Your task to perform on an android device: add a contact in the contacts app Image 0: 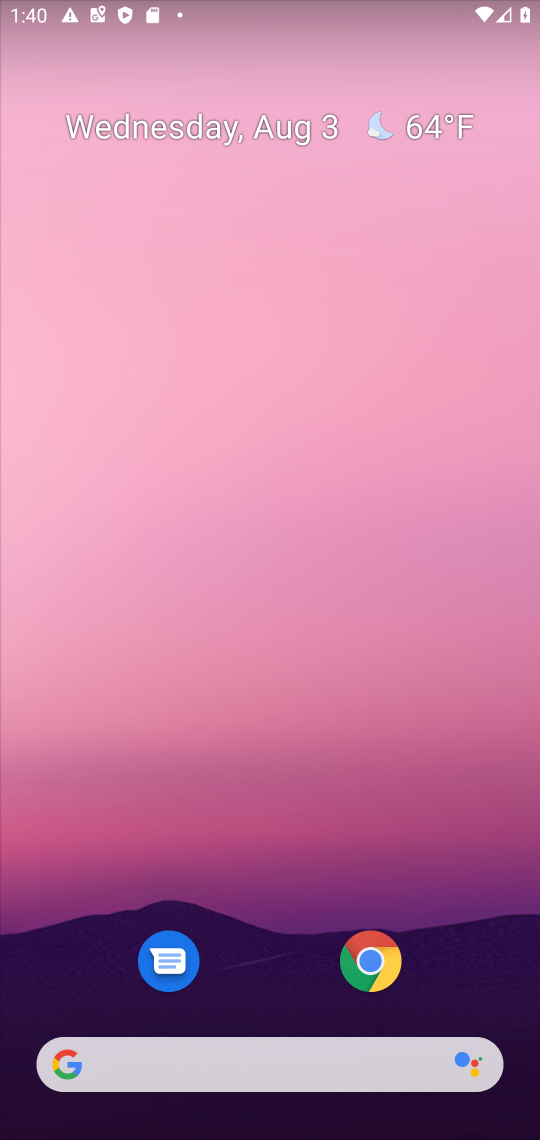
Step 0: drag from (280, 952) to (297, 101)
Your task to perform on an android device: add a contact in the contacts app Image 1: 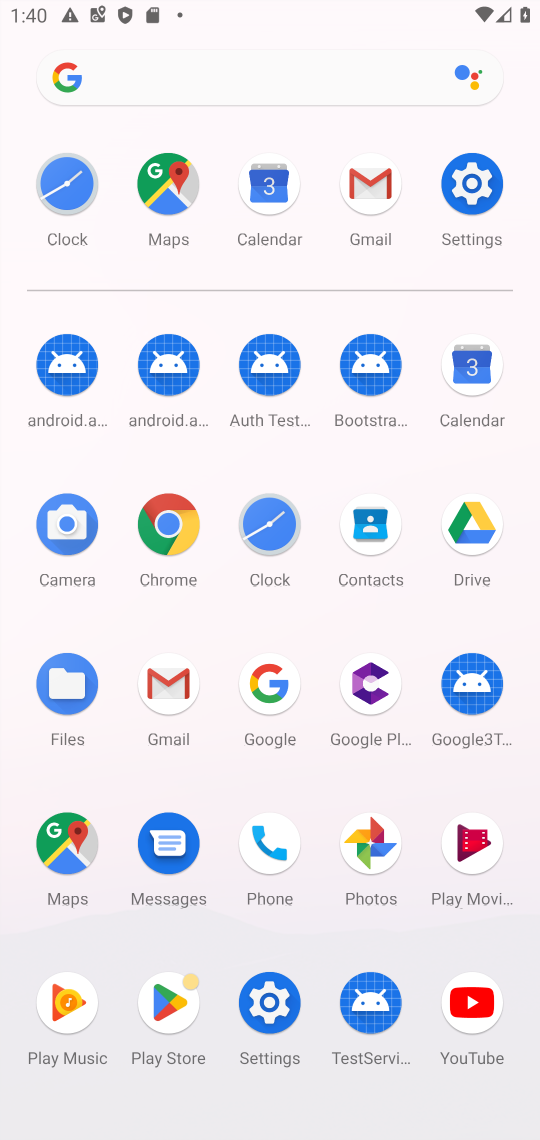
Step 1: click (366, 534)
Your task to perform on an android device: add a contact in the contacts app Image 2: 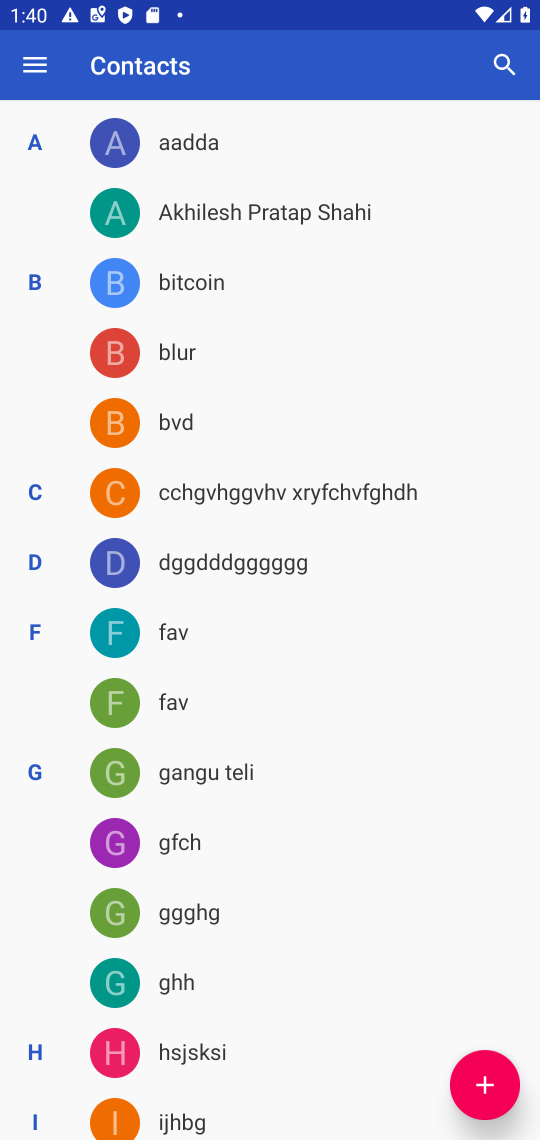
Step 2: click (481, 1093)
Your task to perform on an android device: add a contact in the contacts app Image 3: 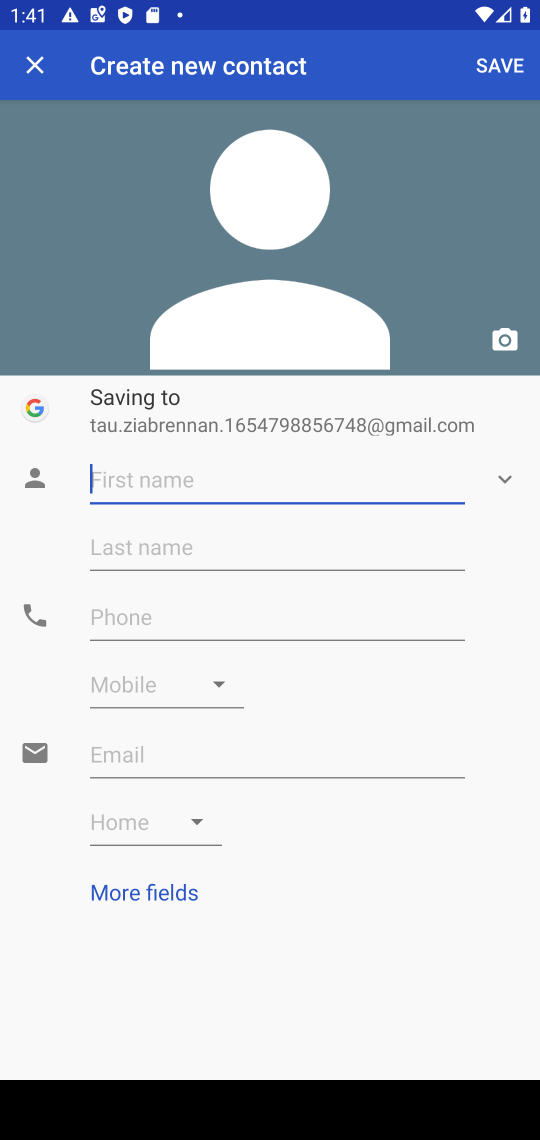
Step 3: click (158, 487)
Your task to perform on an android device: add a contact in the contacts app Image 4: 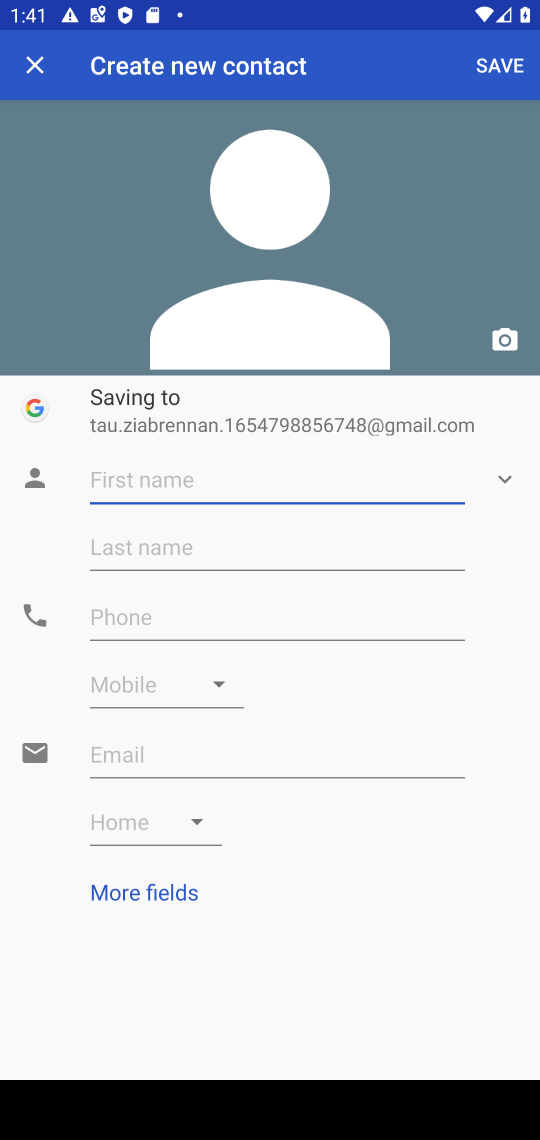
Step 4: type "yrueiey"
Your task to perform on an android device: add a contact in the contacts app Image 5: 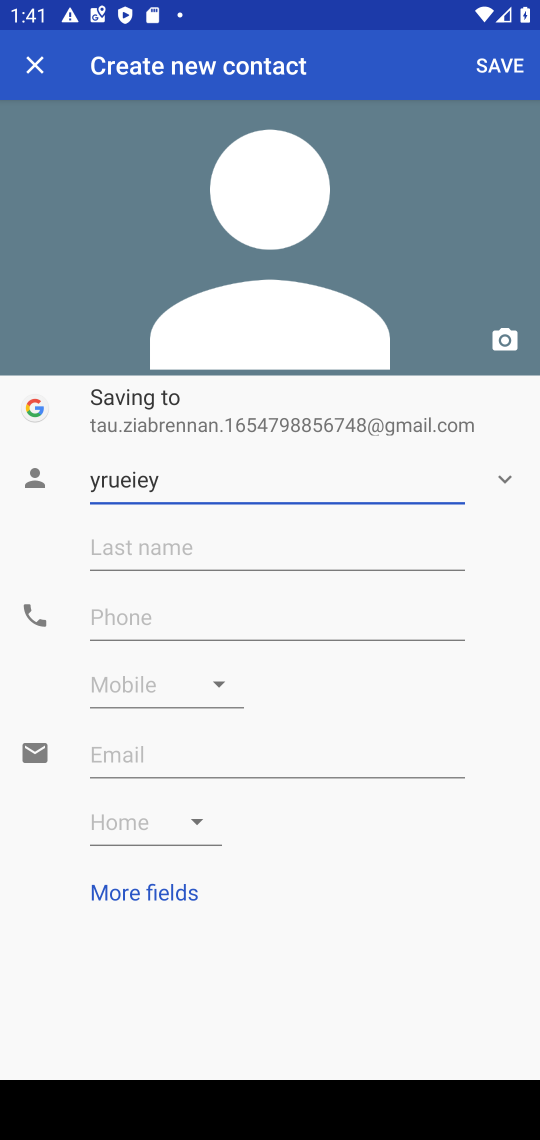
Step 5: click (203, 612)
Your task to perform on an android device: add a contact in the contacts app Image 6: 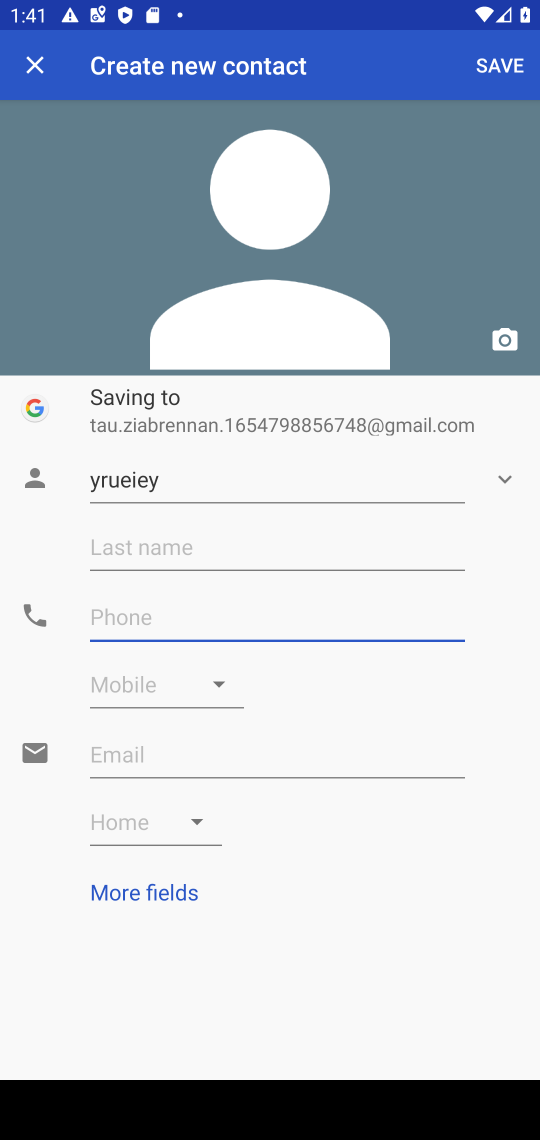
Step 6: type "647463657"
Your task to perform on an android device: add a contact in the contacts app Image 7: 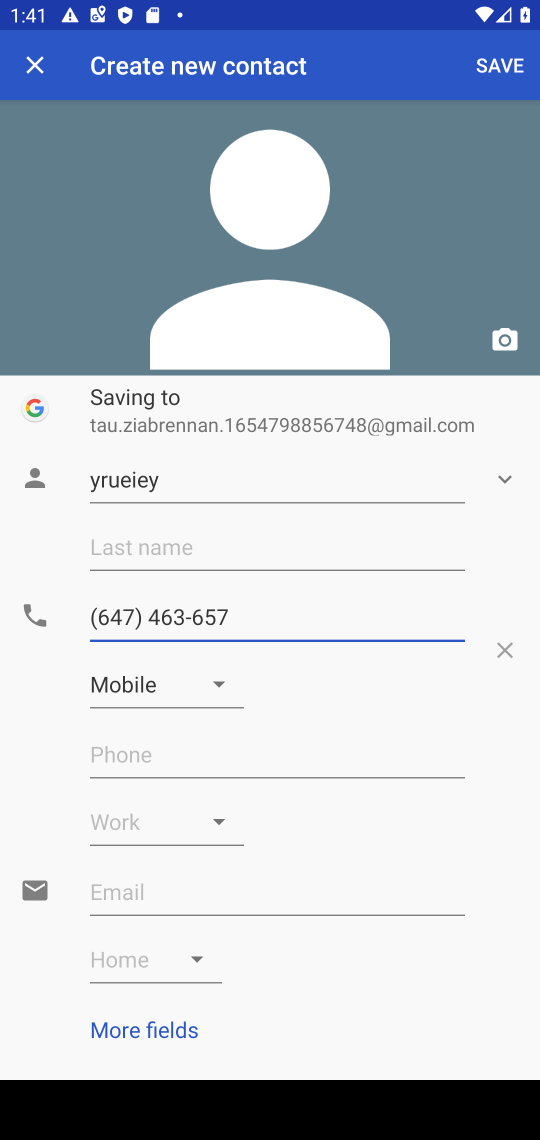
Step 7: click (505, 71)
Your task to perform on an android device: add a contact in the contacts app Image 8: 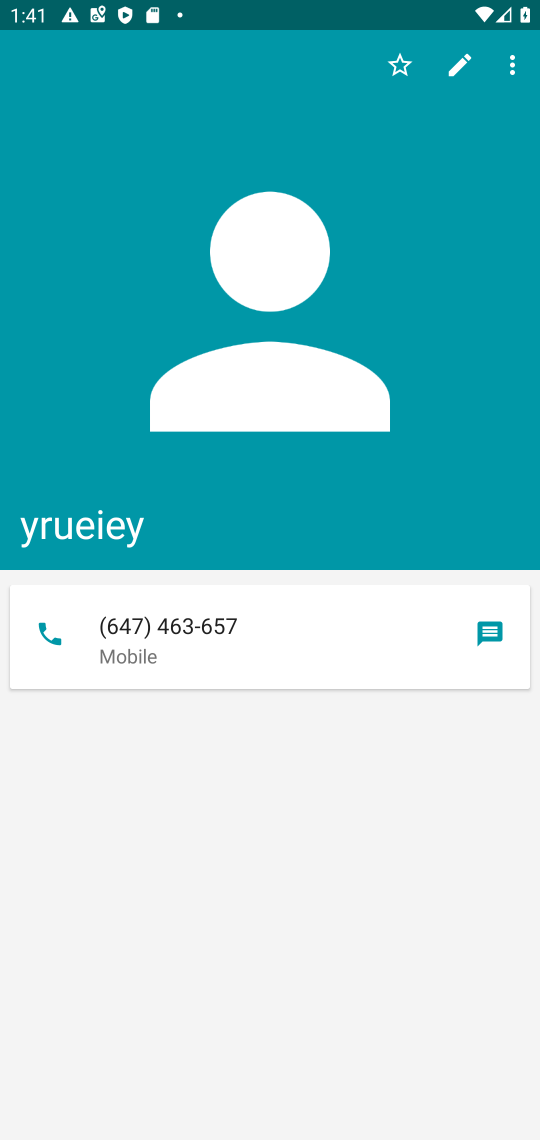
Step 8: task complete